Your task to perform on an android device: all mails in gmail Image 0: 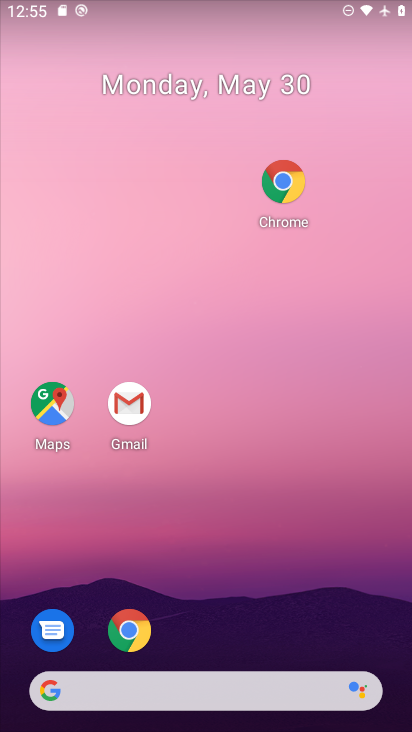
Step 0: drag from (302, 668) to (196, 186)
Your task to perform on an android device: all mails in gmail Image 1: 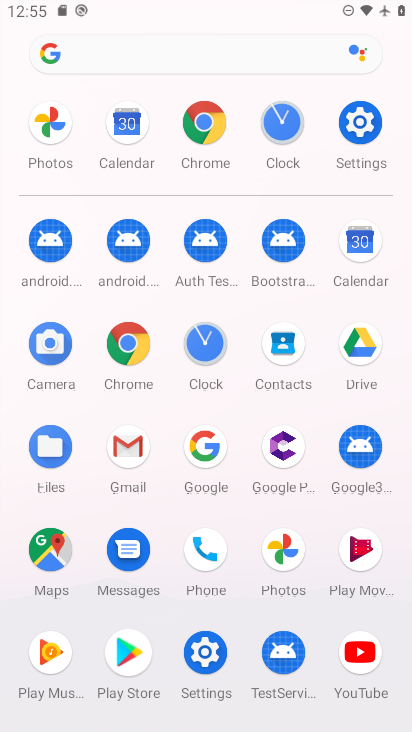
Step 1: click (135, 444)
Your task to perform on an android device: all mails in gmail Image 2: 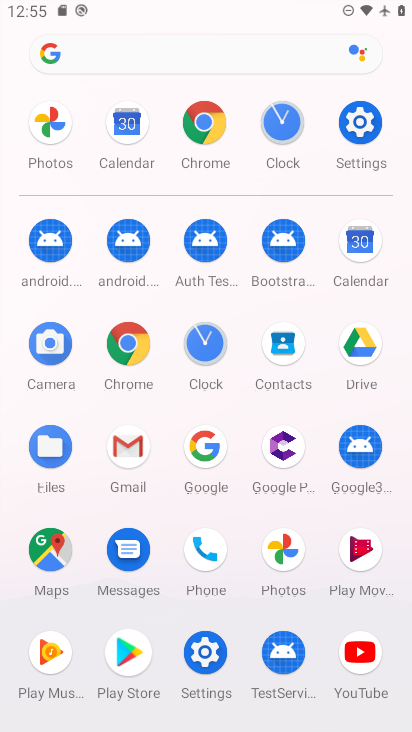
Step 2: click (135, 443)
Your task to perform on an android device: all mails in gmail Image 3: 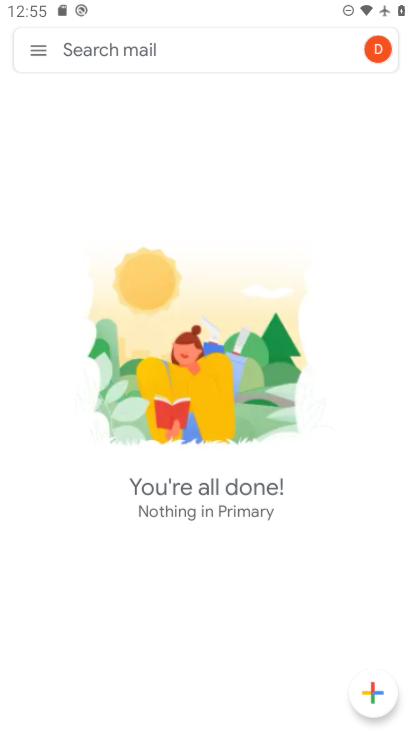
Step 3: click (135, 443)
Your task to perform on an android device: all mails in gmail Image 4: 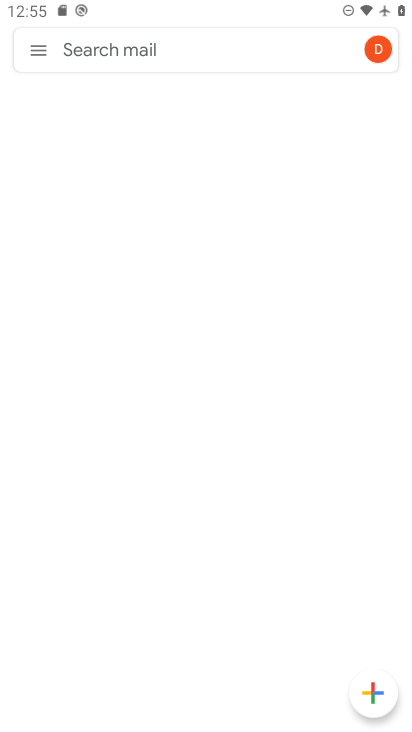
Step 4: click (34, 50)
Your task to perform on an android device: all mails in gmail Image 5: 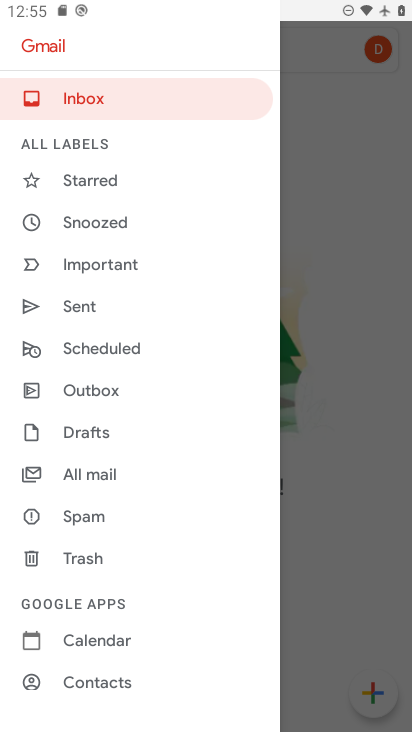
Step 5: click (84, 457)
Your task to perform on an android device: all mails in gmail Image 6: 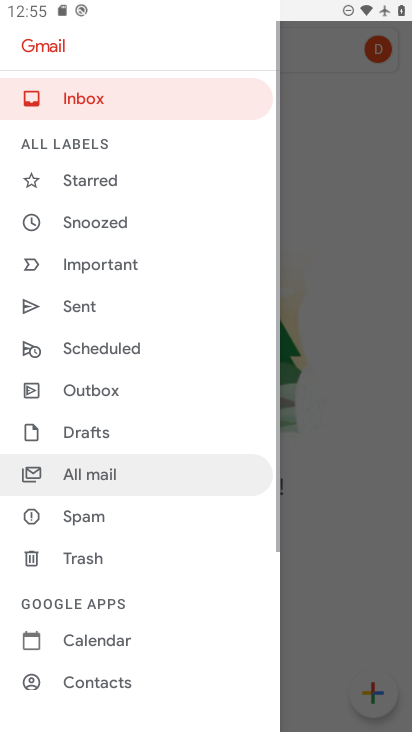
Step 6: click (91, 493)
Your task to perform on an android device: all mails in gmail Image 7: 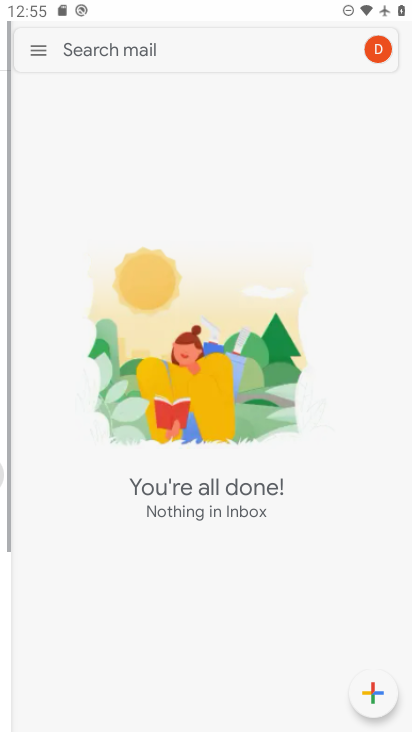
Step 7: click (93, 477)
Your task to perform on an android device: all mails in gmail Image 8: 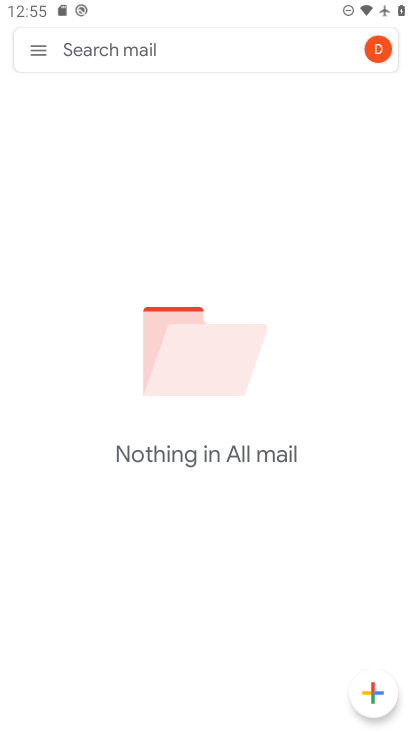
Step 8: task complete